Your task to perform on an android device: Go to accessibility settings Image 0: 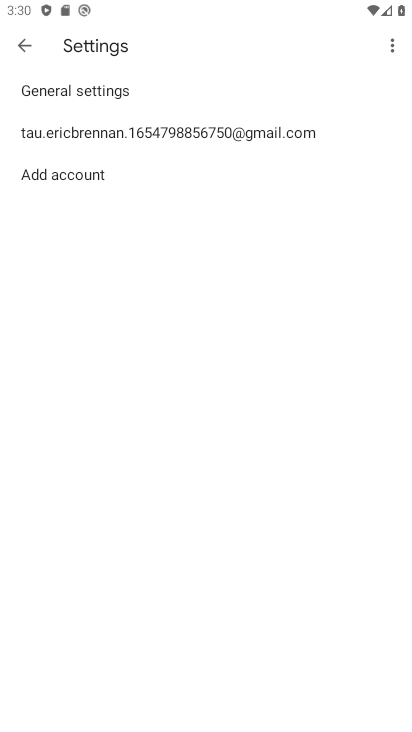
Step 0: press home button
Your task to perform on an android device: Go to accessibility settings Image 1: 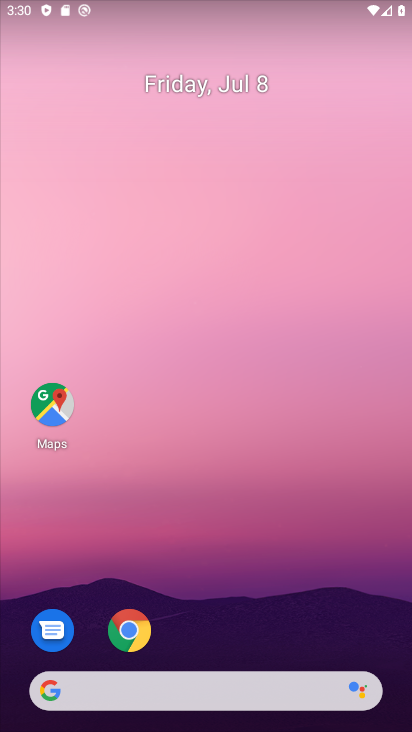
Step 1: drag from (303, 640) to (288, 207)
Your task to perform on an android device: Go to accessibility settings Image 2: 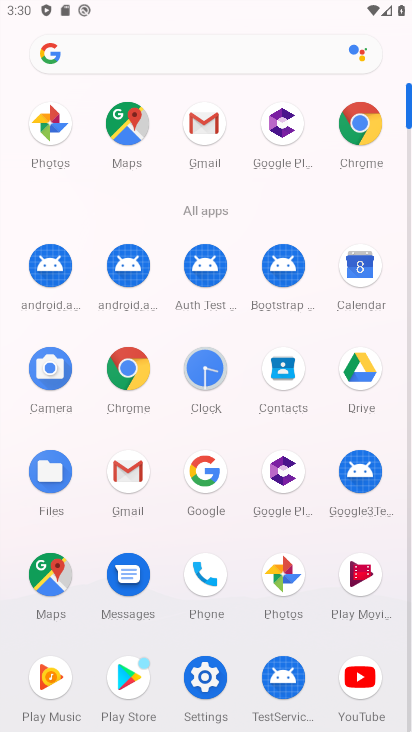
Step 2: click (190, 670)
Your task to perform on an android device: Go to accessibility settings Image 3: 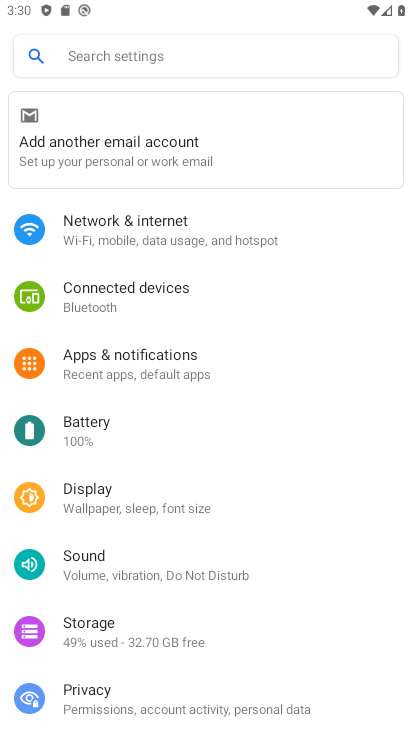
Step 3: drag from (152, 635) to (112, 114)
Your task to perform on an android device: Go to accessibility settings Image 4: 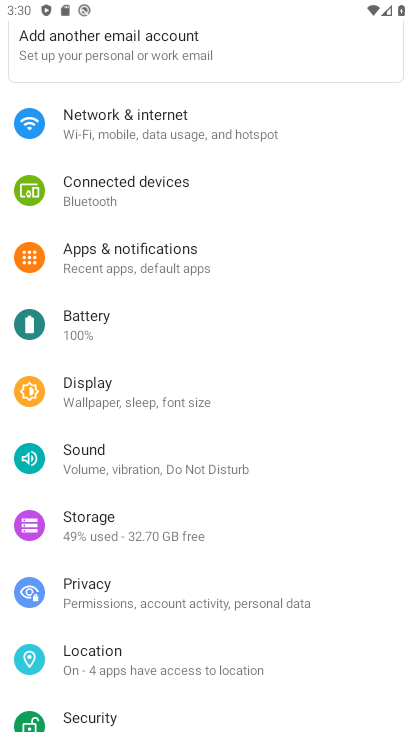
Step 4: drag from (143, 528) to (129, 183)
Your task to perform on an android device: Go to accessibility settings Image 5: 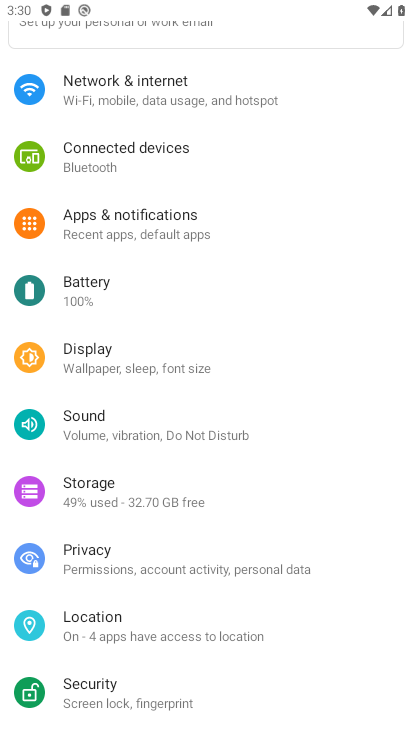
Step 5: drag from (212, 633) to (200, 247)
Your task to perform on an android device: Go to accessibility settings Image 6: 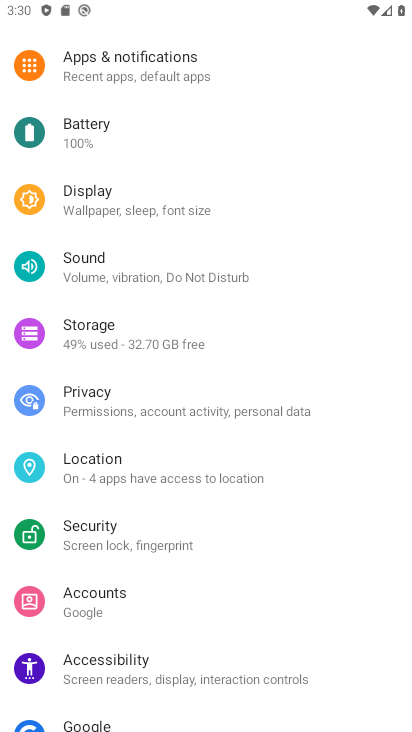
Step 6: click (147, 680)
Your task to perform on an android device: Go to accessibility settings Image 7: 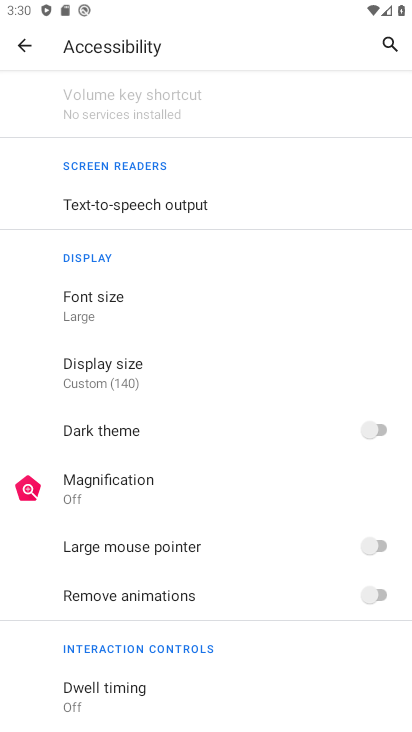
Step 7: task complete